Your task to perform on an android device: Open Google Chrome and open the bookmarks view Image 0: 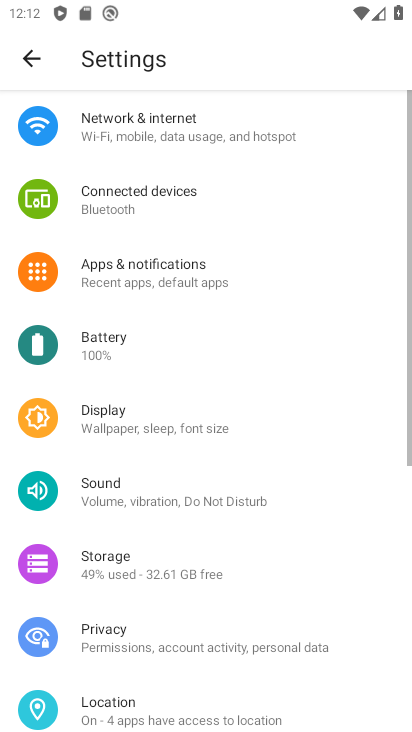
Step 0: press home button
Your task to perform on an android device: Open Google Chrome and open the bookmarks view Image 1: 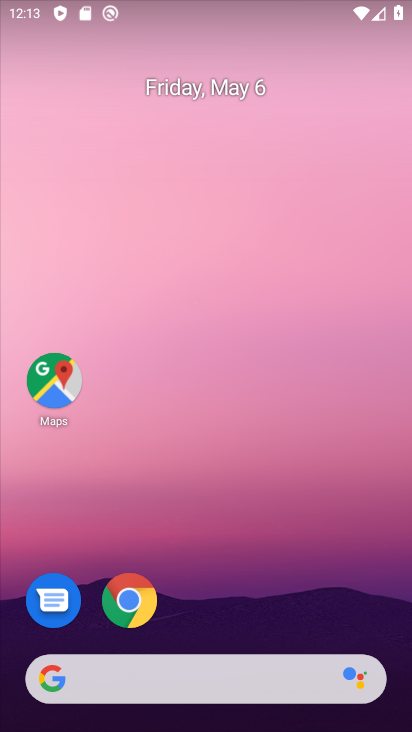
Step 1: drag from (359, 622) to (309, 77)
Your task to perform on an android device: Open Google Chrome and open the bookmarks view Image 2: 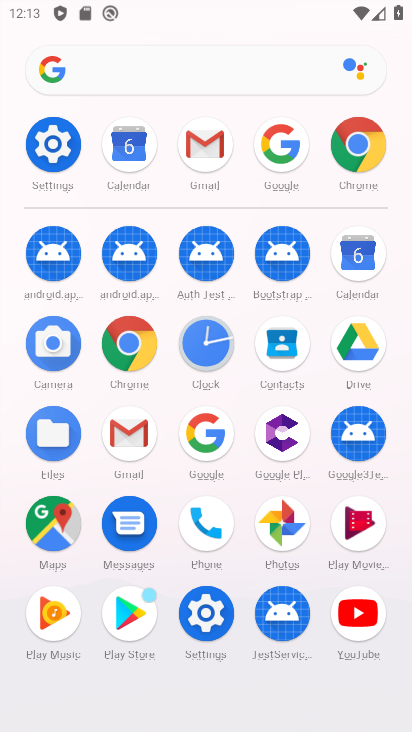
Step 2: click (348, 148)
Your task to perform on an android device: Open Google Chrome and open the bookmarks view Image 3: 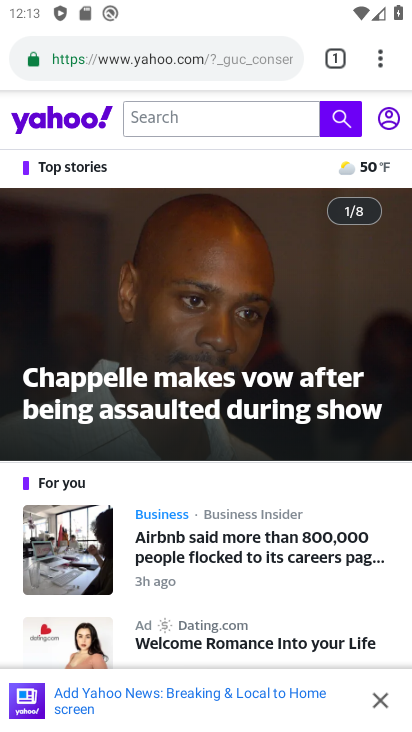
Step 3: press back button
Your task to perform on an android device: Open Google Chrome and open the bookmarks view Image 4: 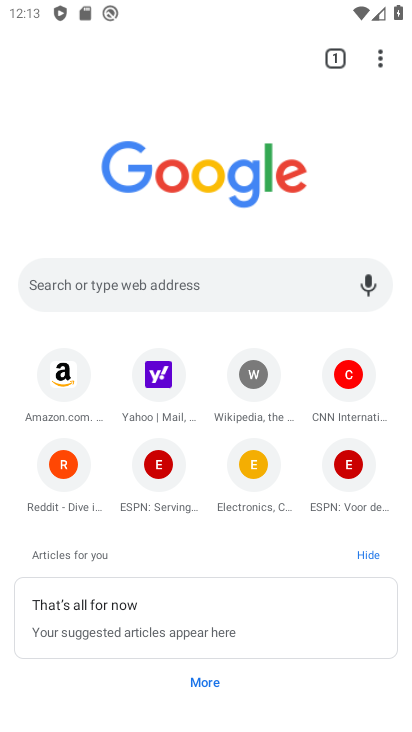
Step 4: click (378, 53)
Your task to perform on an android device: Open Google Chrome and open the bookmarks view Image 5: 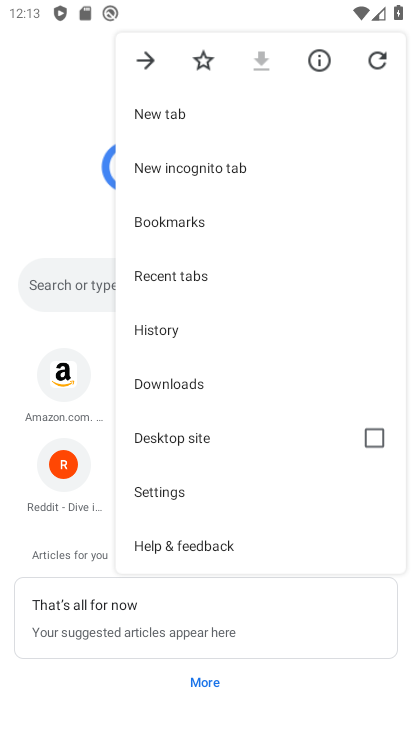
Step 5: click (246, 222)
Your task to perform on an android device: Open Google Chrome and open the bookmarks view Image 6: 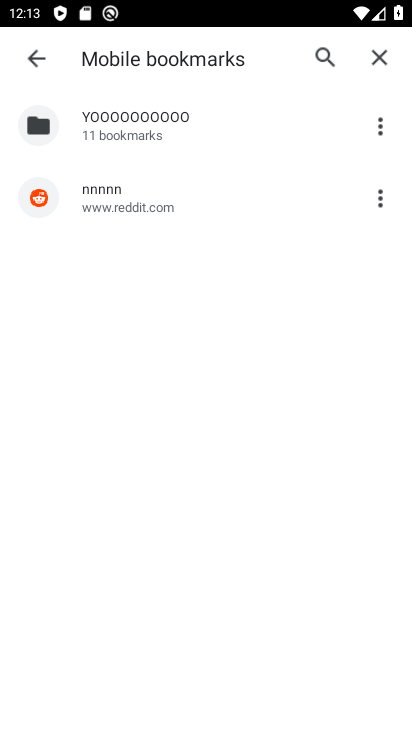
Step 6: task complete